Your task to perform on an android device: Is it going to rain this weekend? Image 0: 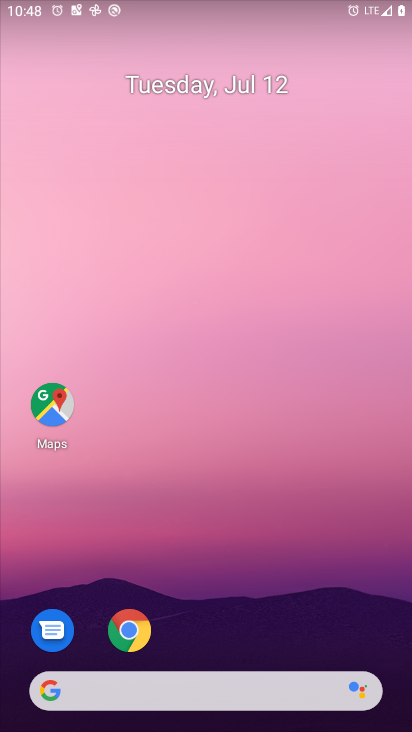
Step 0: press home button
Your task to perform on an android device: Is it going to rain this weekend? Image 1: 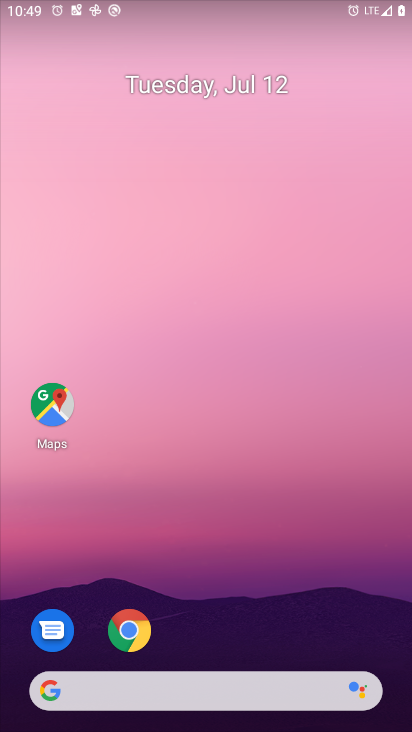
Step 1: click (192, 686)
Your task to perform on an android device: Is it going to rain this weekend? Image 2: 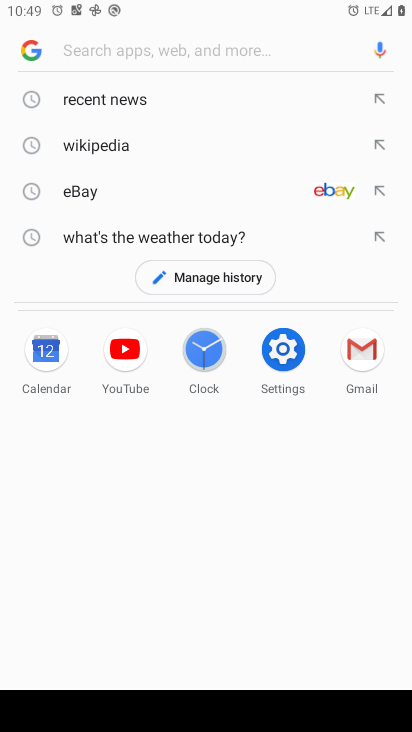
Step 2: type "Is it going to rain this weekend?"
Your task to perform on an android device: Is it going to rain this weekend? Image 3: 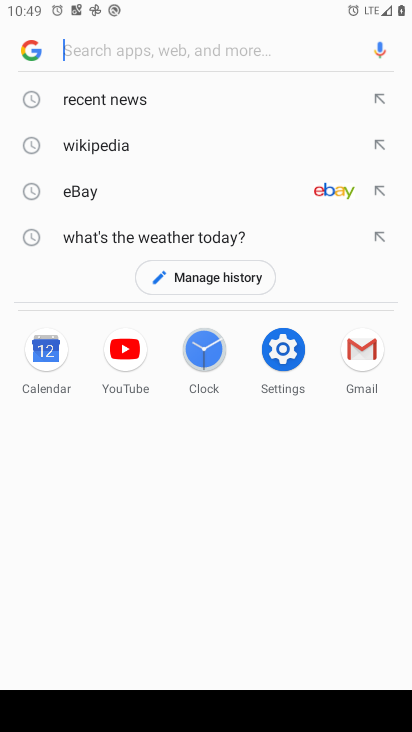
Step 3: click (164, 47)
Your task to perform on an android device: Is it going to rain this weekend? Image 4: 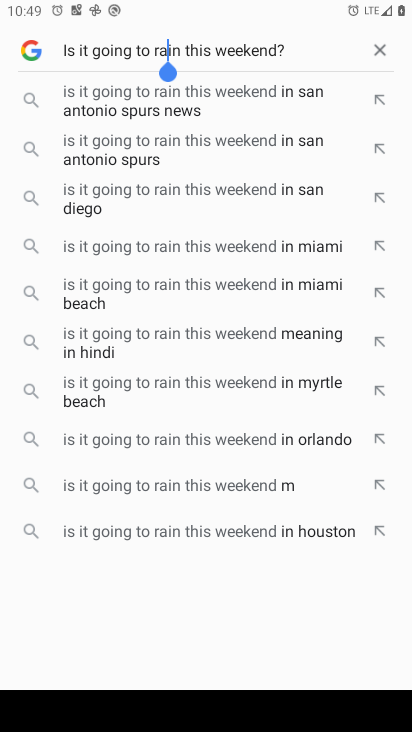
Step 4: press enter
Your task to perform on an android device: Is it going to rain this weekend? Image 5: 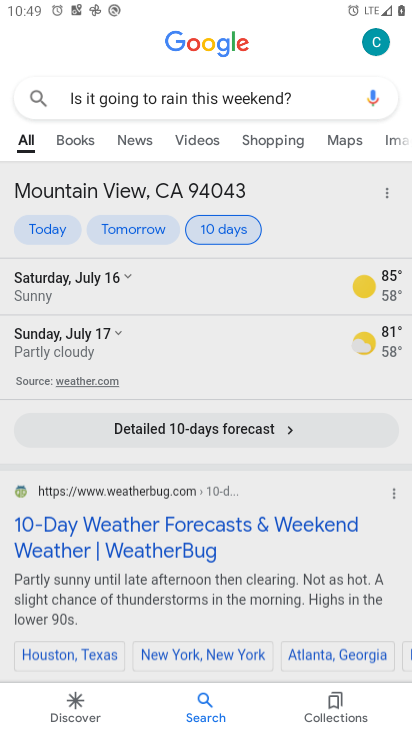
Step 5: task complete